Your task to perform on an android device: Go to display settings Image 0: 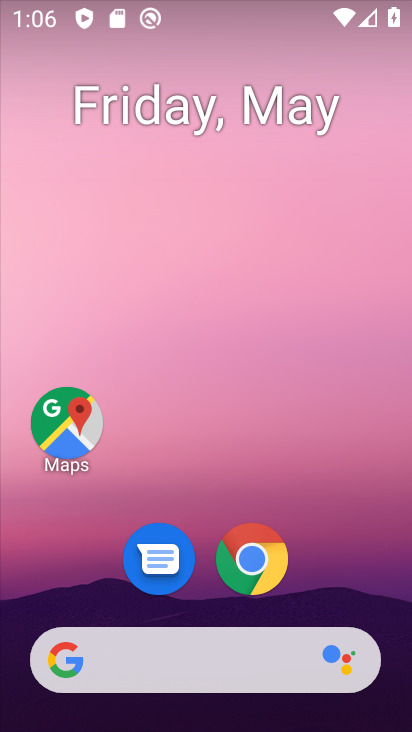
Step 0: drag from (346, 466) to (334, 144)
Your task to perform on an android device: Go to display settings Image 1: 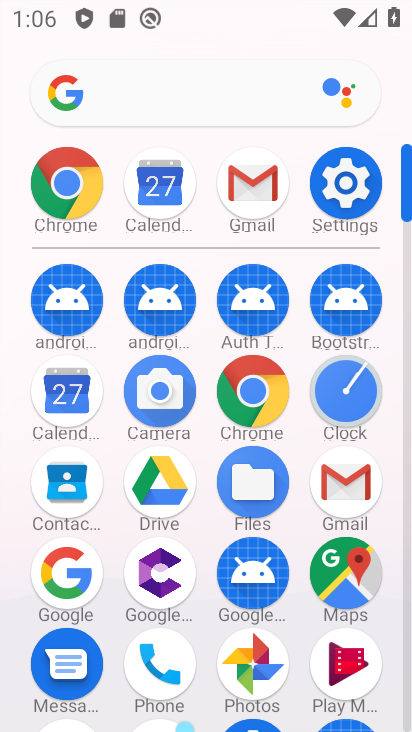
Step 1: click (345, 175)
Your task to perform on an android device: Go to display settings Image 2: 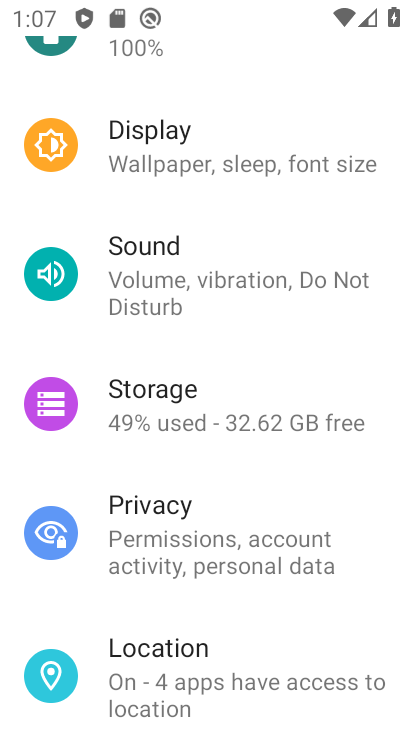
Step 2: drag from (232, 220) to (249, 543)
Your task to perform on an android device: Go to display settings Image 3: 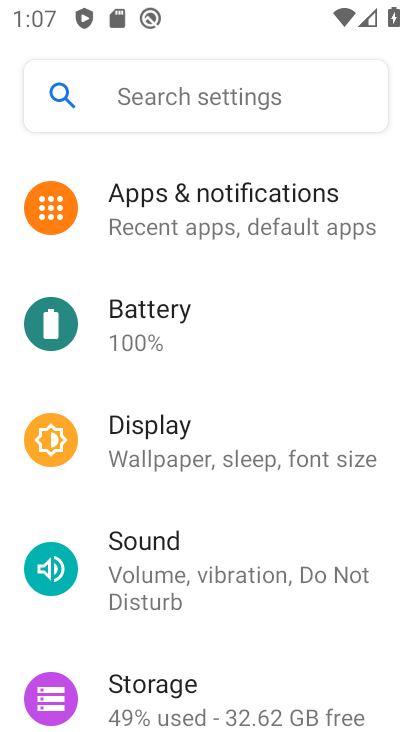
Step 3: click (187, 431)
Your task to perform on an android device: Go to display settings Image 4: 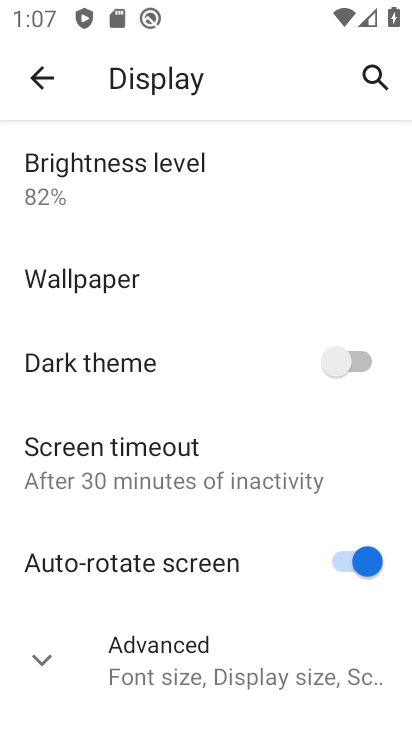
Step 4: task complete